Your task to perform on an android device: set default search engine in the chrome app Image 0: 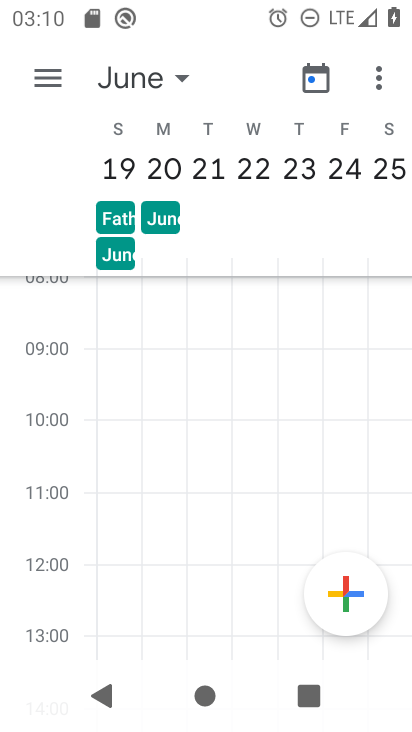
Step 0: press home button
Your task to perform on an android device: set default search engine in the chrome app Image 1: 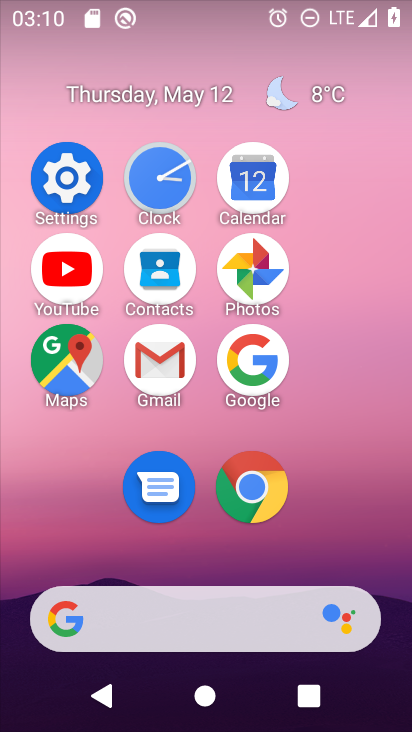
Step 1: click (269, 474)
Your task to perform on an android device: set default search engine in the chrome app Image 2: 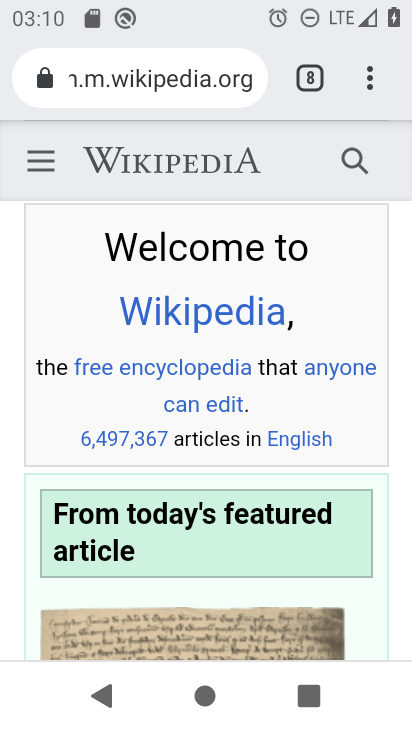
Step 2: click (370, 75)
Your task to perform on an android device: set default search engine in the chrome app Image 3: 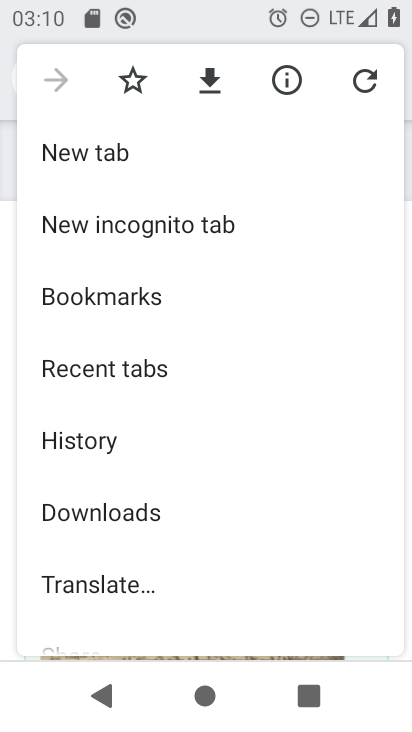
Step 3: drag from (250, 493) to (268, 111)
Your task to perform on an android device: set default search engine in the chrome app Image 4: 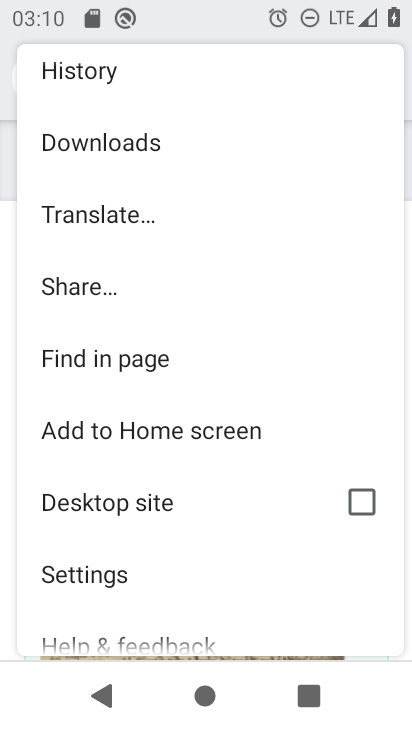
Step 4: click (134, 584)
Your task to perform on an android device: set default search engine in the chrome app Image 5: 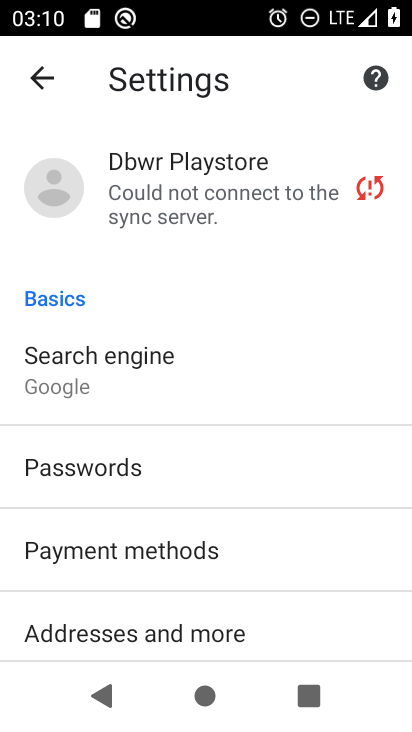
Step 5: click (211, 368)
Your task to perform on an android device: set default search engine in the chrome app Image 6: 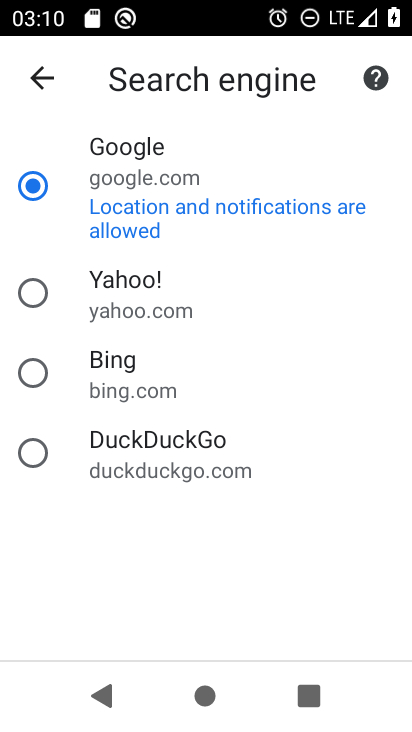
Step 6: task complete